Your task to perform on an android device: clear history in the chrome app Image 0: 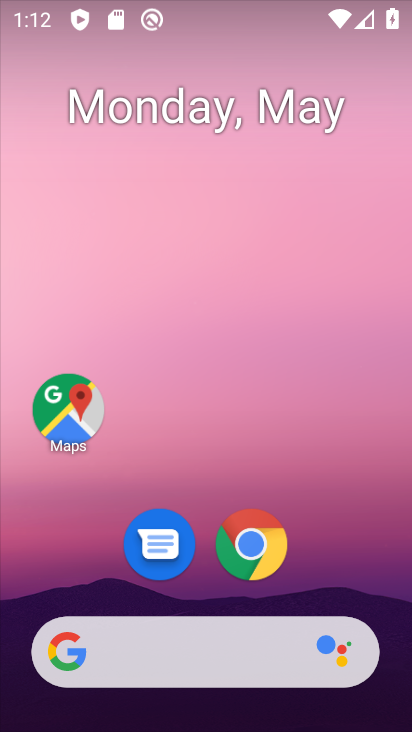
Step 0: drag from (380, 580) to (384, 269)
Your task to perform on an android device: clear history in the chrome app Image 1: 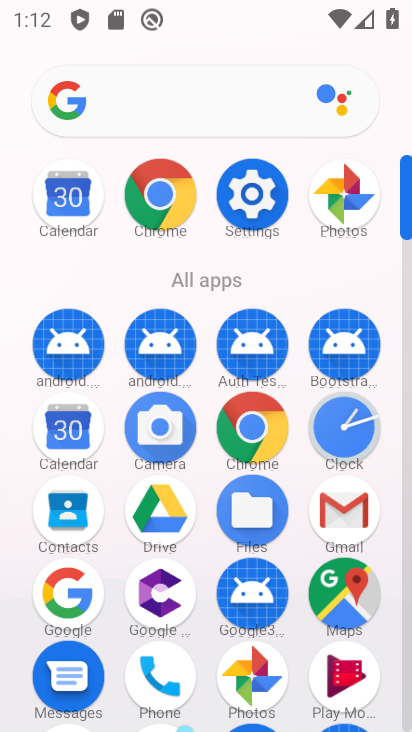
Step 1: click (253, 427)
Your task to perform on an android device: clear history in the chrome app Image 2: 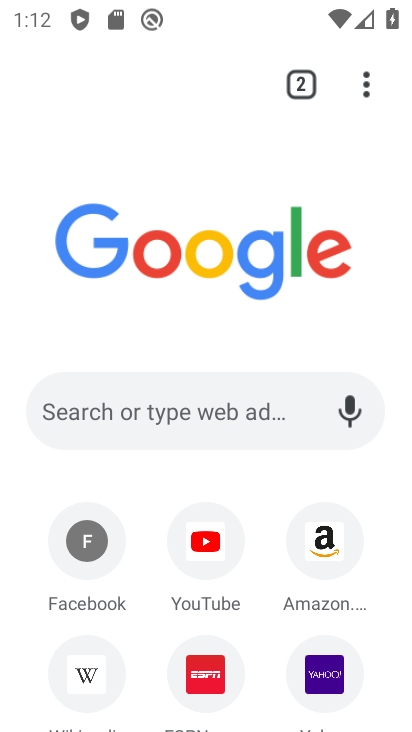
Step 2: click (366, 97)
Your task to perform on an android device: clear history in the chrome app Image 3: 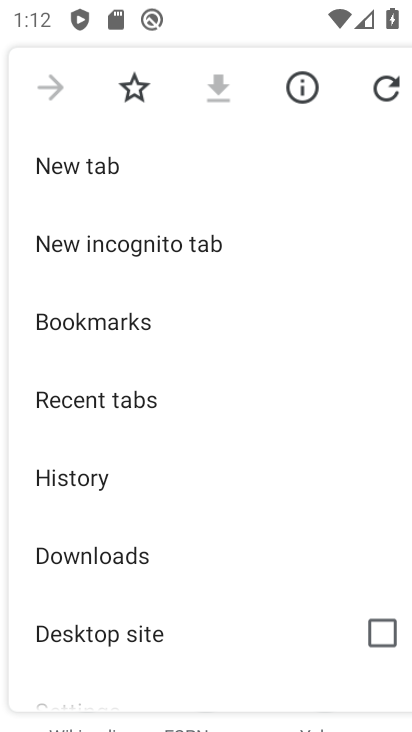
Step 3: click (115, 487)
Your task to perform on an android device: clear history in the chrome app Image 4: 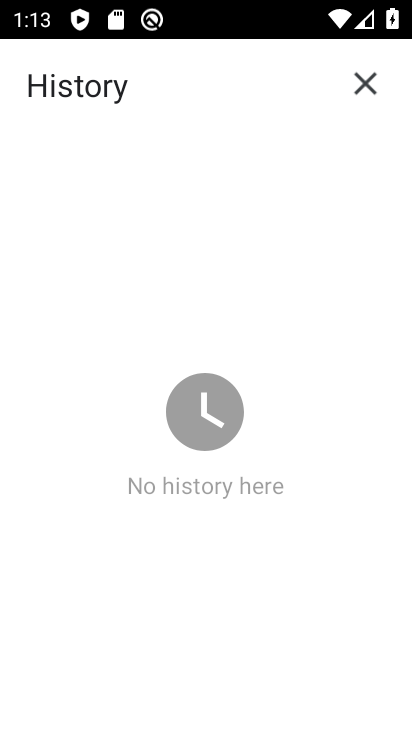
Step 4: task complete